Your task to perform on an android device: uninstall "Yahoo Mail" Image 0: 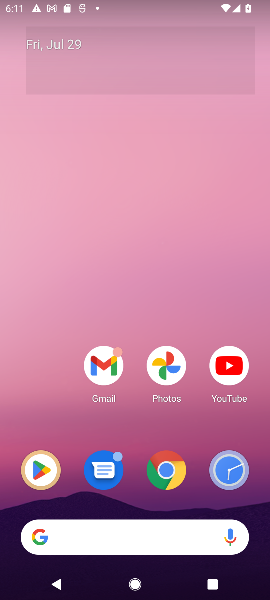
Step 0: drag from (197, 429) to (192, 8)
Your task to perform on an android device: uninstall "Yahoo Mail" Image 1: 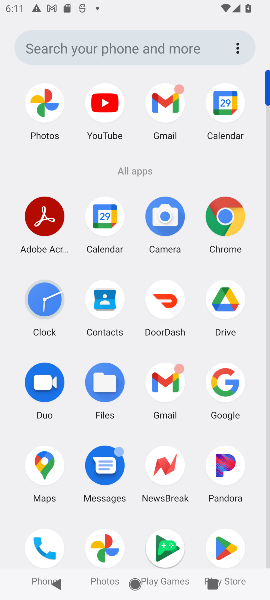
Step 1: click (227, 556)
Your task to perform on an android device: uninstall "Yahoo Mail" Image 2: 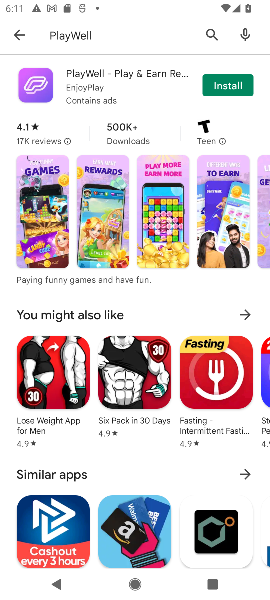
Step 2: click (127, 41)
Your task to perform on an android device: uninstall "Yahoo Mail" Image 3: 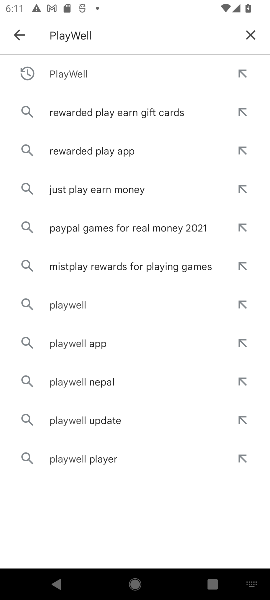
Step 3: click (251, 34)
Your task to perform on an android device: uninstall "Yahoo Mail" Image 4: 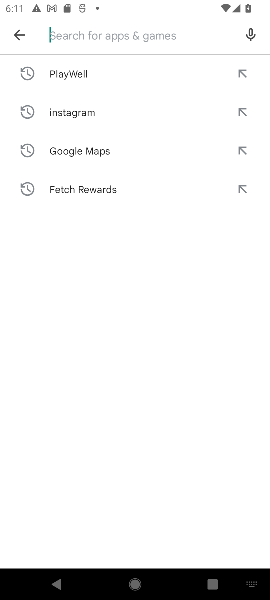
Step 4: type "Yahoo Mail"
Your task to perform on an android device: uninstall "Yahoo Mail" Image 5: 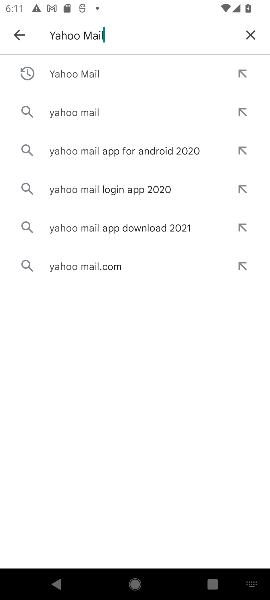
Step 5: press enter
Your task to perform on an android device: uninstall "Yahoo Mail" Image 6: 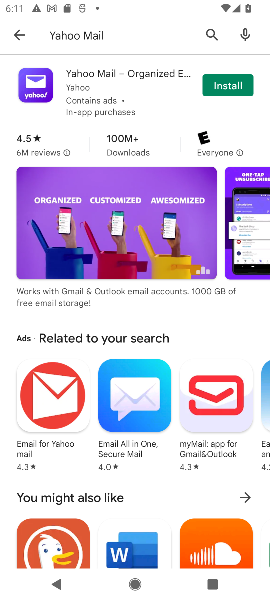
Step 6: task complete